Your task to perform on an android device: Open calendar and show me the first week of next month Image 0: 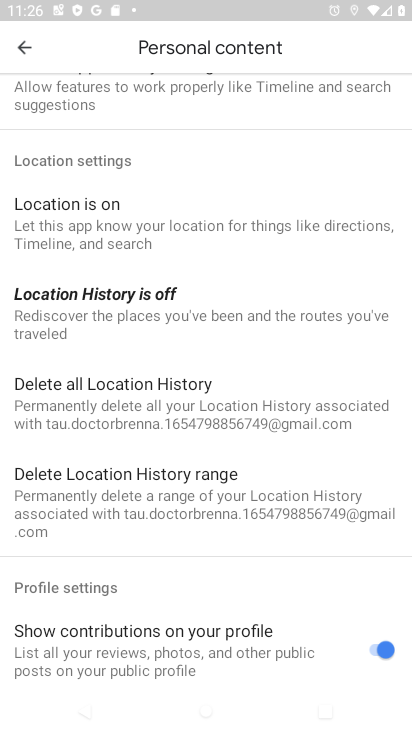
Step 0: press home button
Your task to perform on an android device: Open calendar and show me the first week of next month Image 1: 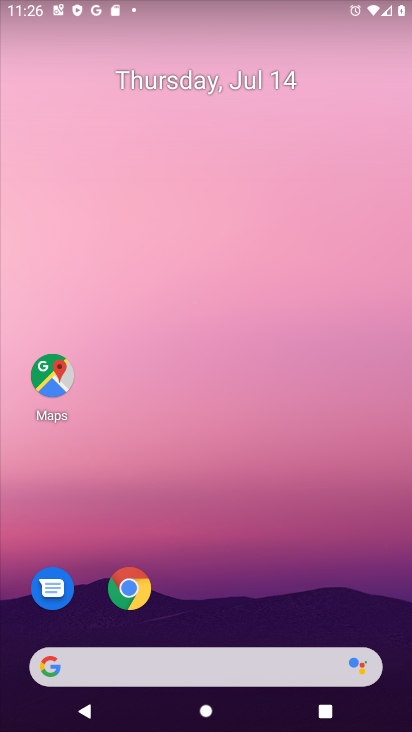
Step 1: drag from (317, 535) to (346, 98)
Your task to perform on an android device: Open calendar and show me the first week of next month Image 2: 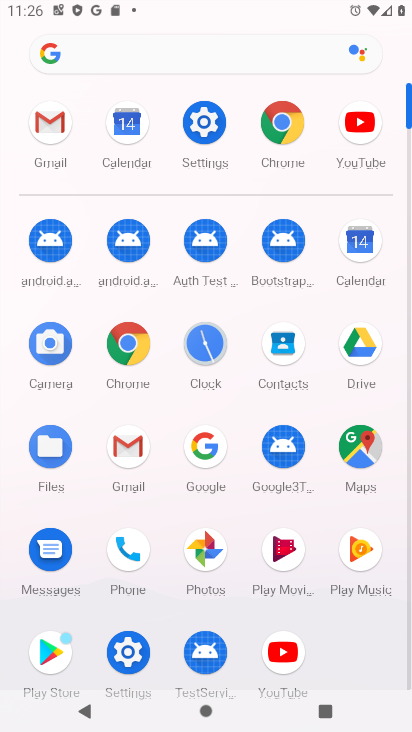
Step 2: click (138, 131)
Your task to perform on an android device: Open calendar and show me the first week of next month Image 3: 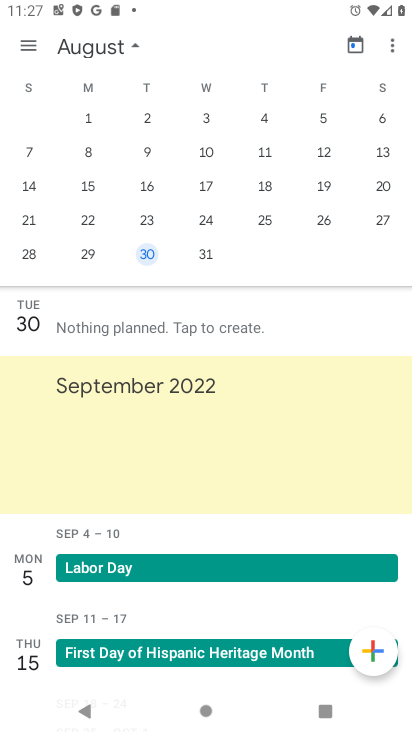
Step 3: click (78, 129)
Your task to perform on an android device: Open calendar and show me the first week of next month Image 4: 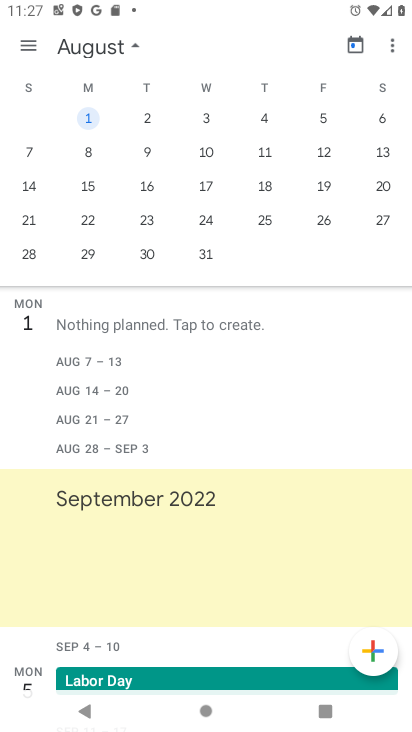
Step 4: task complete